Your task to perform on an android device: turn on the 12-hour format for clock Image 0: 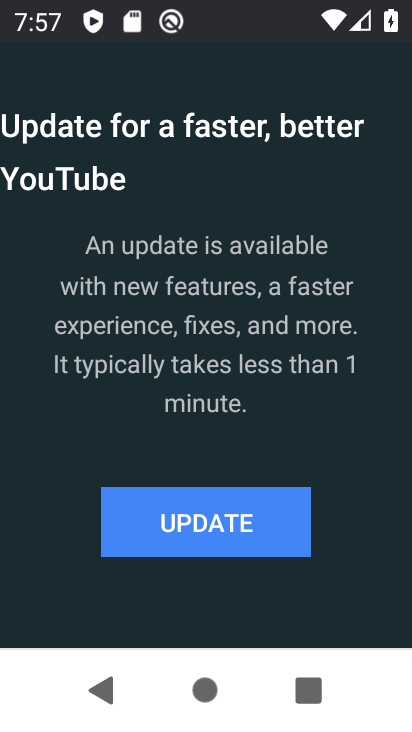
Step 0: press home button
Your task to perform on an android device: turn on the 12-hour format for clock Image 1: 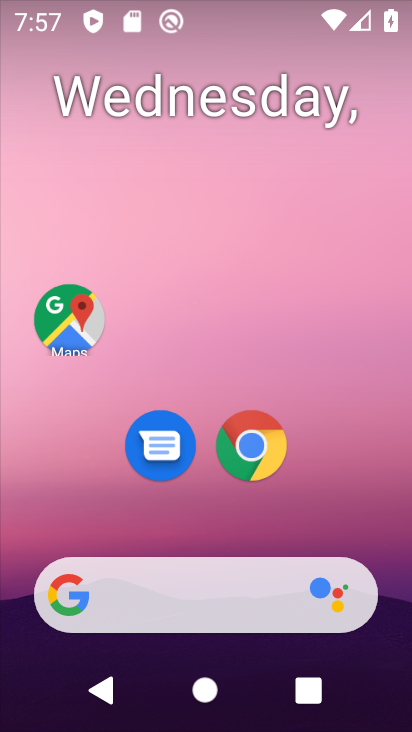
Step 1: drag from (327, 499) to (326, 266)
Your task to perform on an android device: turn on the 12-hour format for clock Image 2: 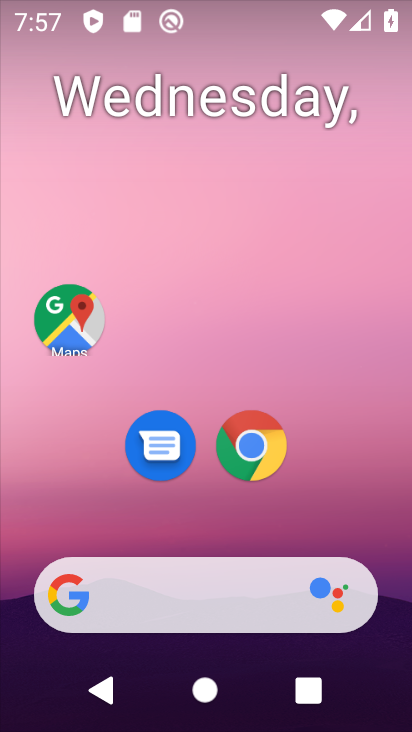
Step 2: drag from (309, 530) to (344, 204)
Your task to perform on an android device: turn on the 12-hour format for clock Image 3: 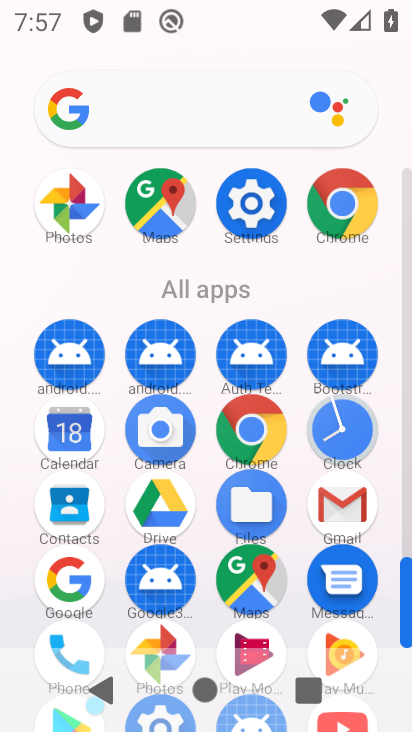
Step 3: click (328, 427)
Your task to perform on an android device: turn on the 12-hour format for clock Image 4: 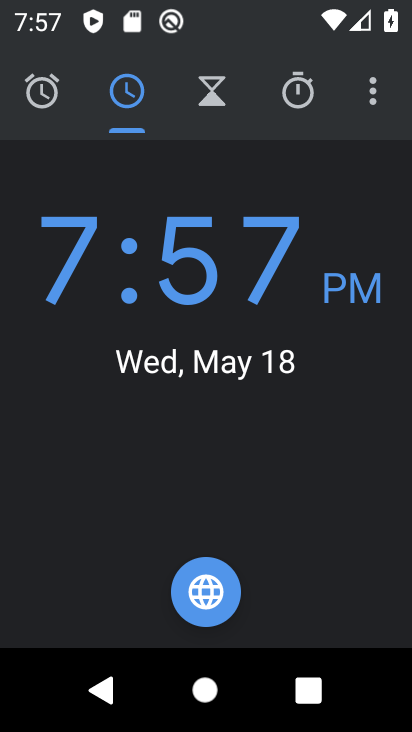
Step 4: click (365, 103)
Your task to perform on an android device: turn on the 12-hour format for clock Image 5: 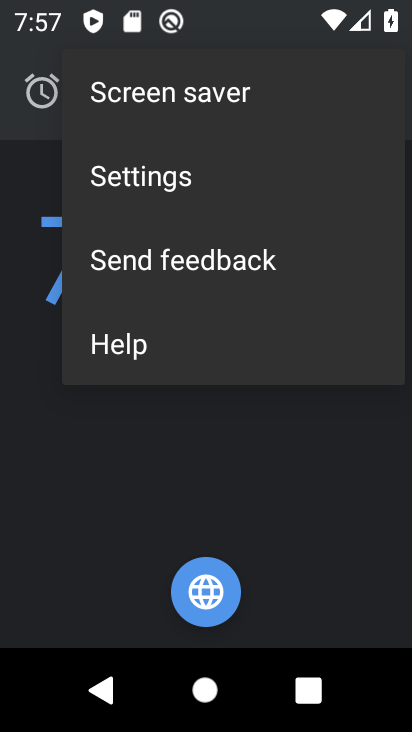
Step 5: click (158, 171)
Your task to perform on an android device: turn on the 12-hour format for clock Image 6: 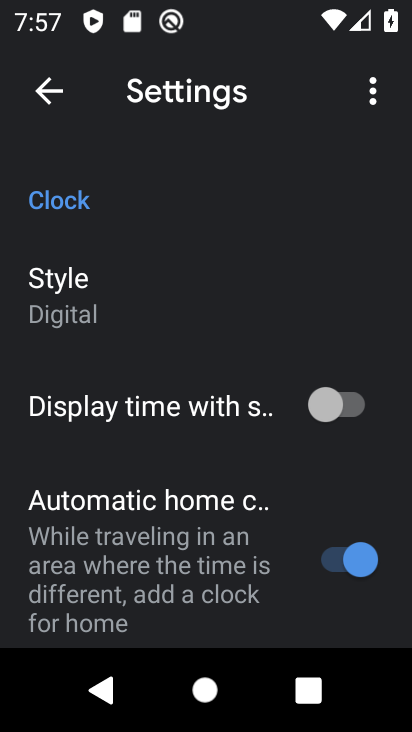
Step 6: drag from (136, 453) to (205, 187)
Your task to perform on an android device: turn on the 12-hour format for clock Image 7: 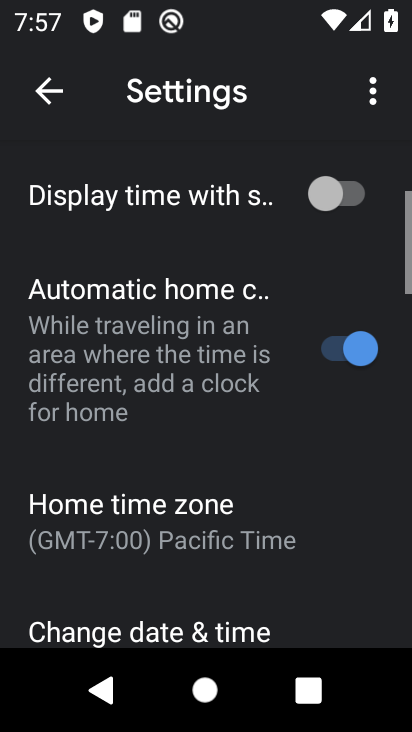
Step 7: drag from (220, 570) to (302, 329)
Your task to perform on an android device: turn on the 12-hour format for clock Image 8: 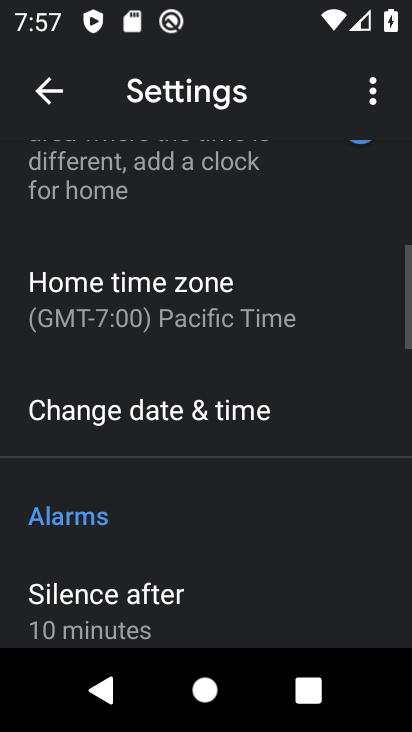
Step 8: click (239, 427)
Your task to perform on an android device: turn on the 12-hour format for clock Image 9: 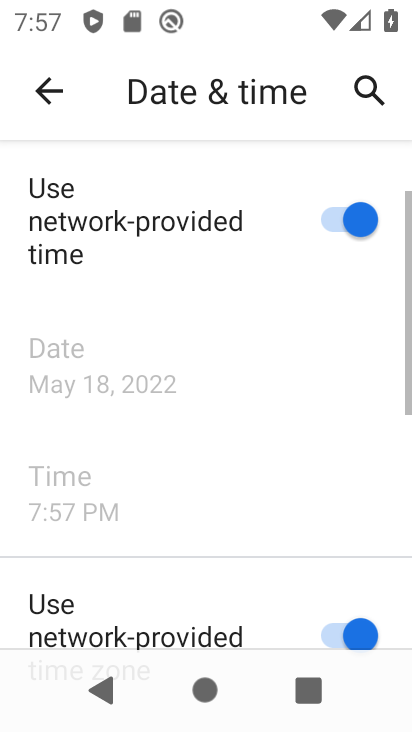
Step 9: drag from (245, 593) to (248, 287)
Your task to perform on an android device: turn on the 12-hour format for clock Image 10: 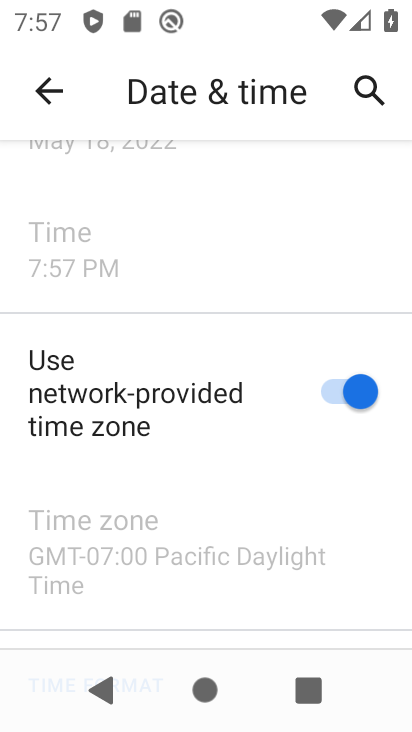
Step 10: drag from (214, 547) to (220, 251)
Your task to perform on an android device: turn on the 12-hour format for clock Image 11: 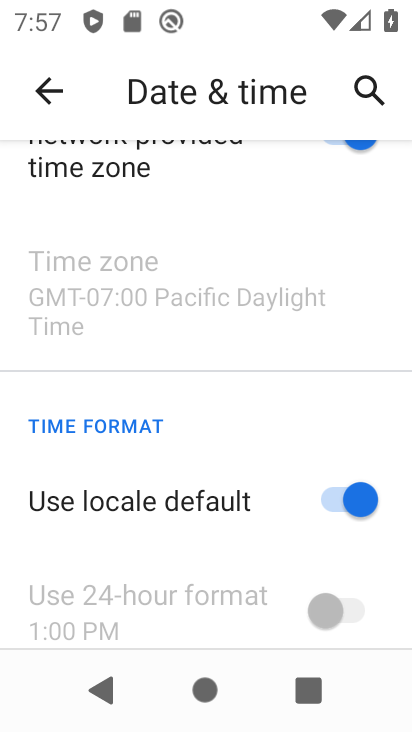
Step 11: click (326, 498)
Your task to perform on an android device: turn on the 12-hour format for clock Image 12: 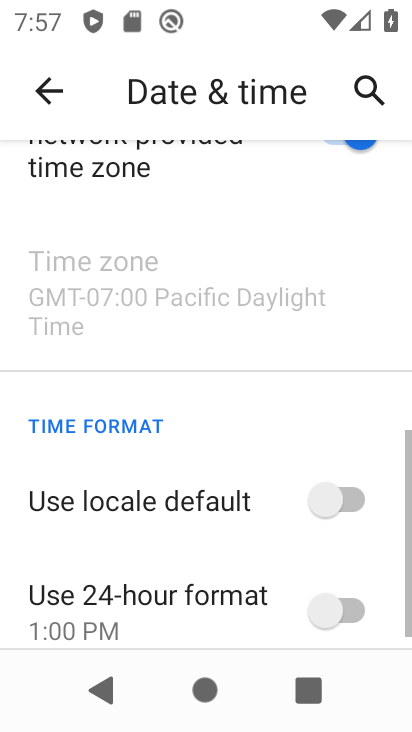
Step 12: click (356, 617)
Your task to perform on an android device: turn on the 12-hour format for clock Image 13: 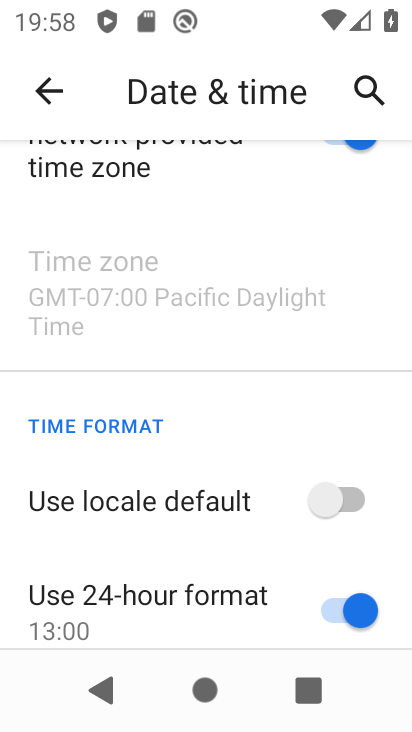
Step 13: task complete